Your task to perform on an android device: Open the phone app and click the voicemail tab. Image 0: 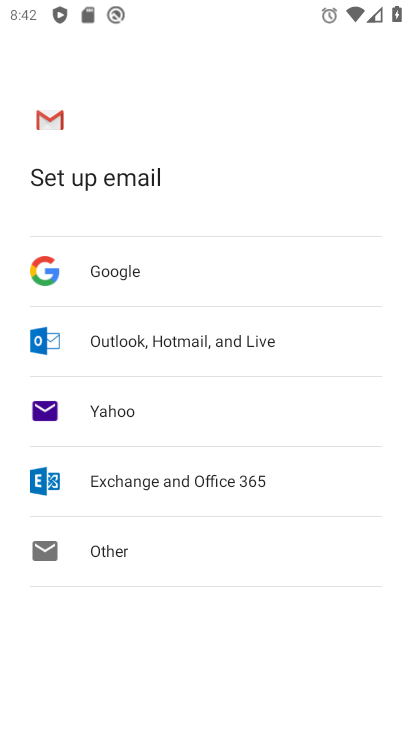
Step 0: press home button
Your task to perform on an android device: Open the phone app and click the voicemail tab. Image 1: 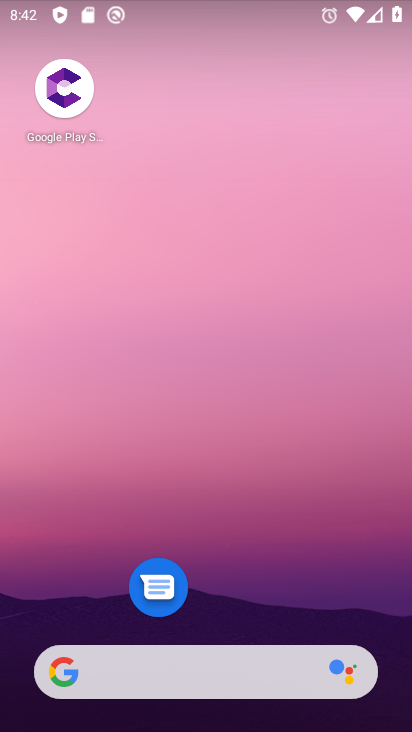
Step 1: drag from (223, 609) to (251, 440)
Your task to perform on an android device: Open the phone app and click the voicemail tab. Image 2: 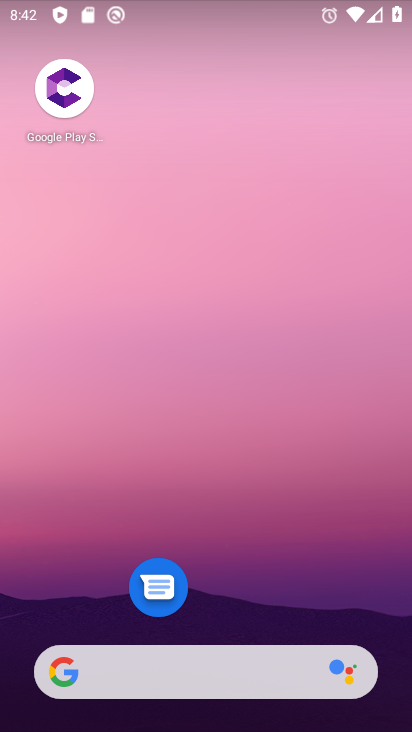
Step 2: click (226, 632)
Your task to perform on an android device: Open the phone app and click the voicemail tab. Image 3: 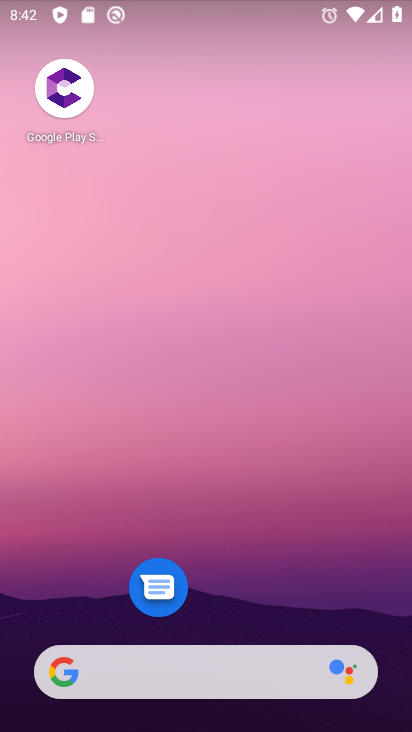
Step 3: drag from (229, 613) to (395, 90)
Your task to perform on an android device: Open the phone app and click the voicemail tab. Image 4: 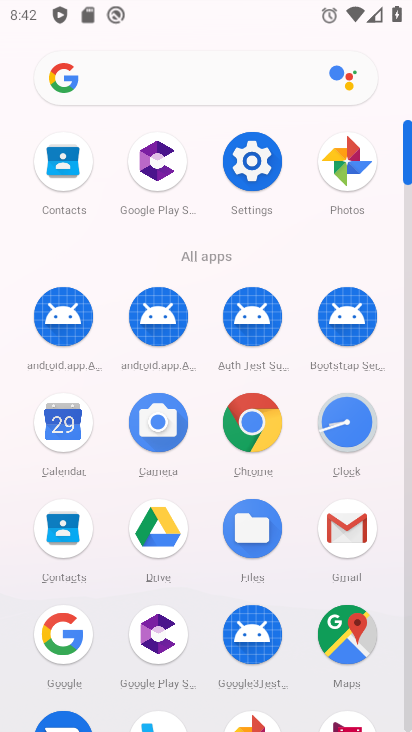
Step 4: drag from (218, 604) to (213, 237)
Your task to perform on an android device: Open the phone app and click the voicemail tab. Image 5: 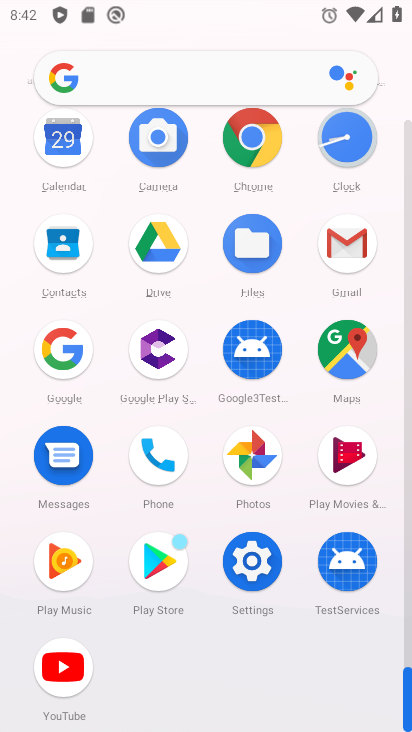
Step 5: click (145, 460)
Your task to perform on an android device: Open the phone app and click the voicemail tab. Image 6: 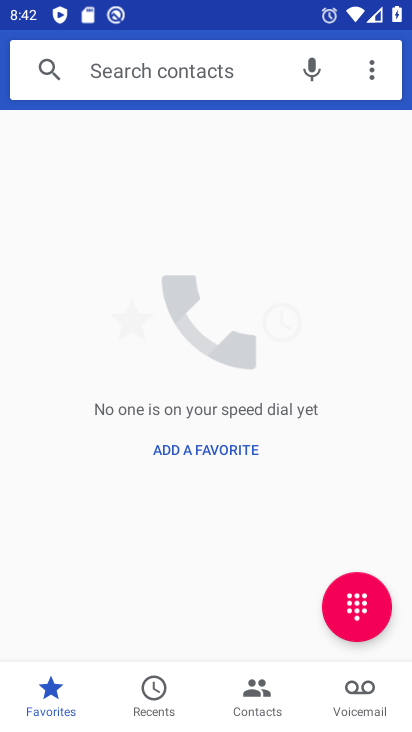
Step 6: click (373, 707)
Your task to perform on an android device: Open the phone app and click the voicemail tab. Image 7: 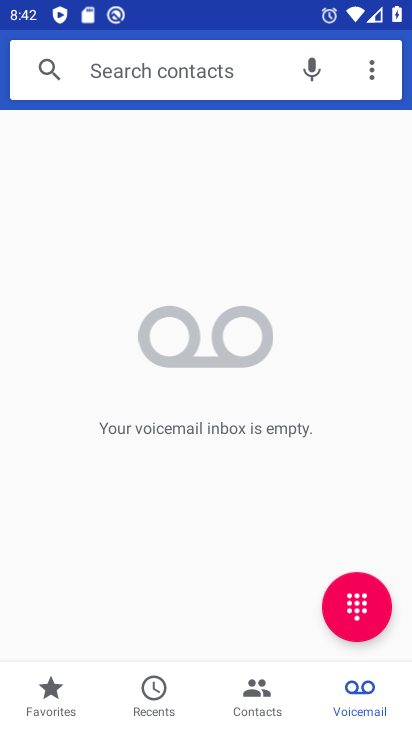
Step 7: task complete